Your task to perform on an android device: turn on bluetooth scan Image 0: 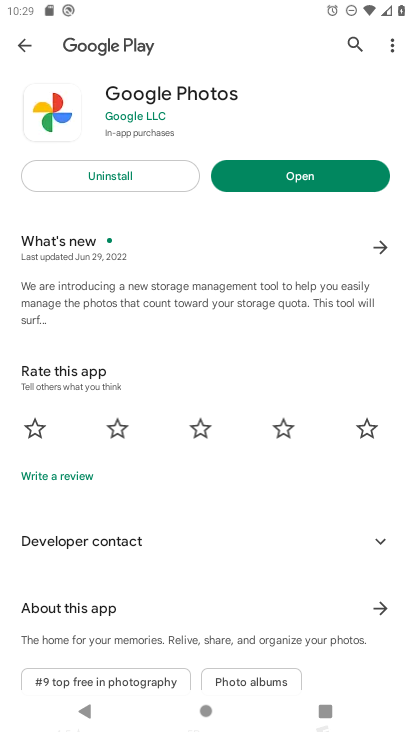
Step 0: press back button
Your task to perform on an android device: turn on bluetooth scan Image 1: 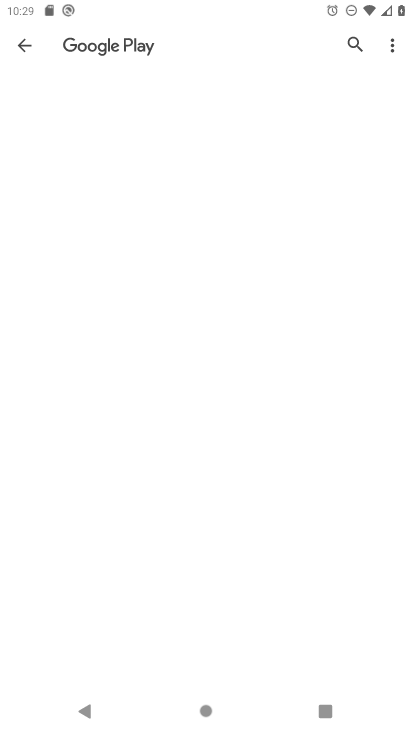
Step 1: press back button
Your task to perform on an android device: turn on bluetooth scan Image 2: 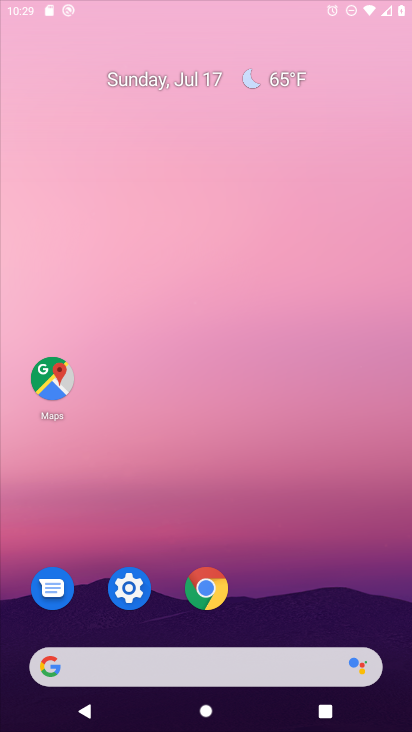
Step 2: press back button
Your task to perform on an android device: turn on bluetooth scan Image 3: 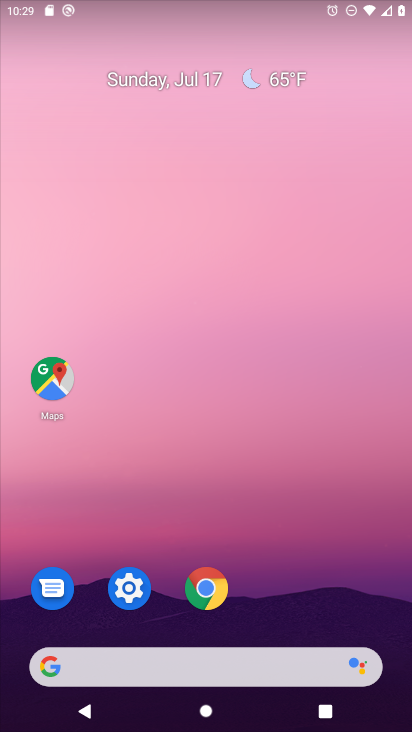
Step 3: drag from (222, 563) to (183, 61)
Your task to perform on an android device: turn on bluetooth scan Image 4: 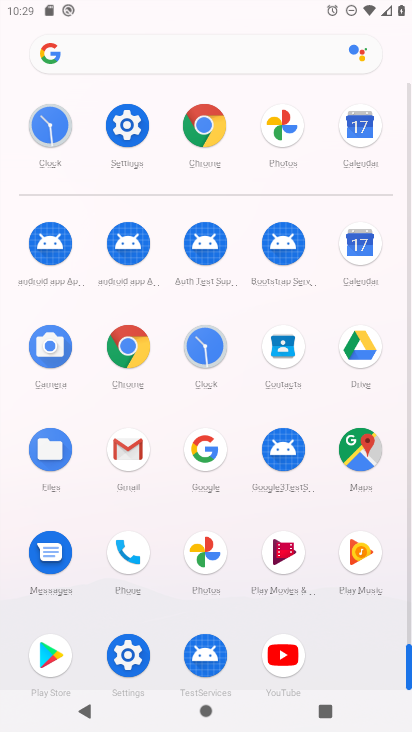
Step 4: click (119, 124)
Your task to perform on an android device: turn on bluetooth scan Image 5: 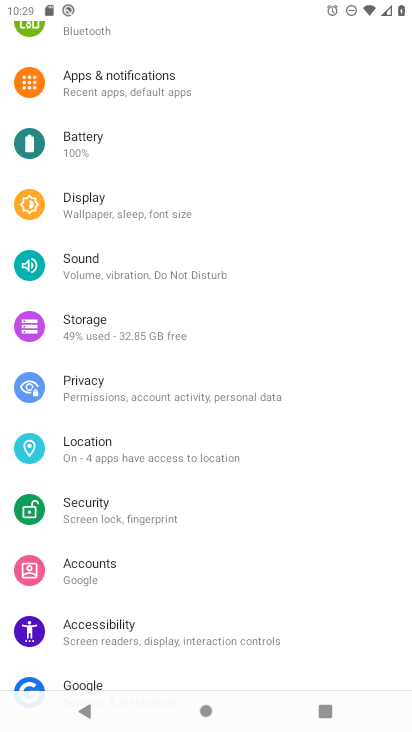
Step 5: click (112, 452)
Your task to perform on an android device: turn on bluetooth scan Image 6: 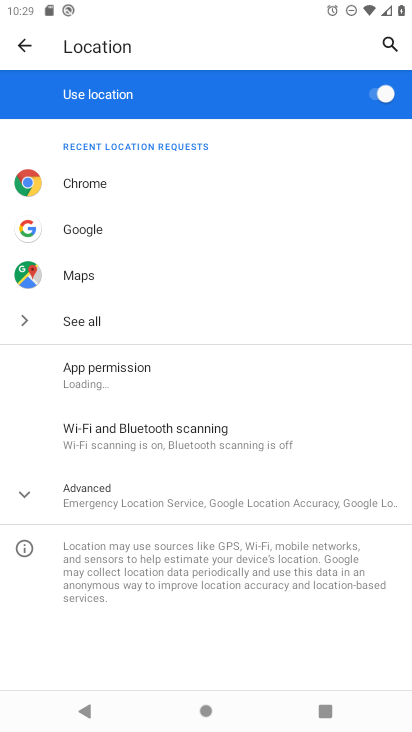
Step 6: click (168, 428)
Your task to perform on an android device: turn on bluetooth scan Image 7: 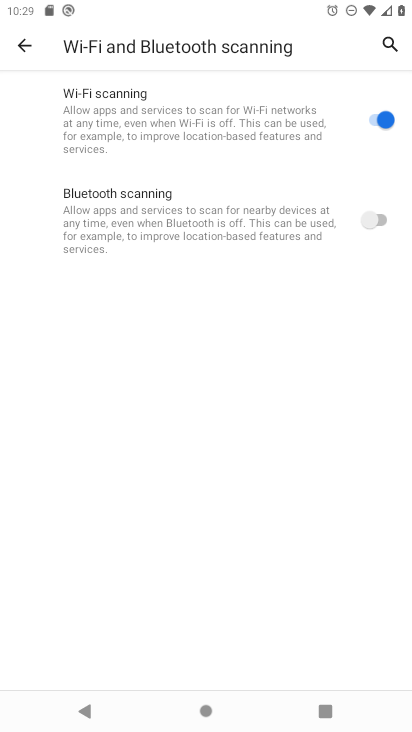
Step 7: click (371, 210)
Your task to perform on an android device: turn on bluetooth scan Image 8: 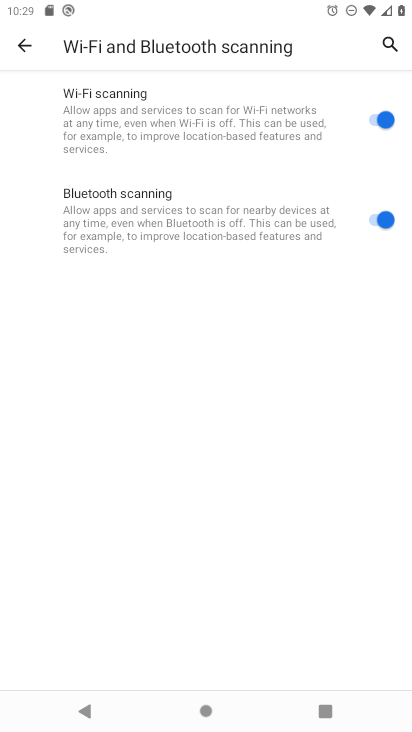
Step 8: task complete